Your task to perform on an android device: toggle translation in the chrome app Image 0: 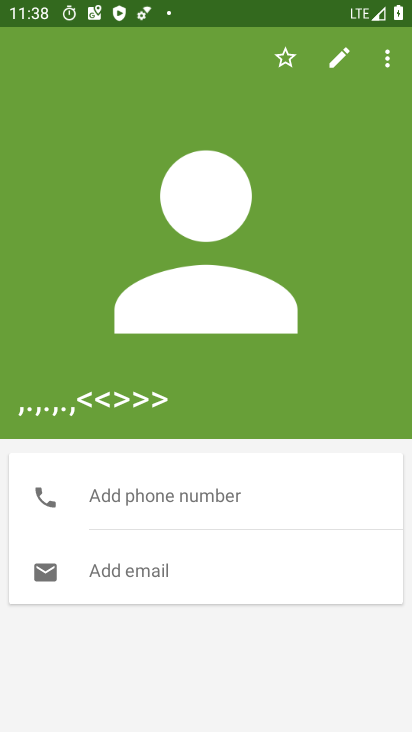
Step 0: press home button
Your task to perform on an android device: toggle translation in the chrome app Image 1: 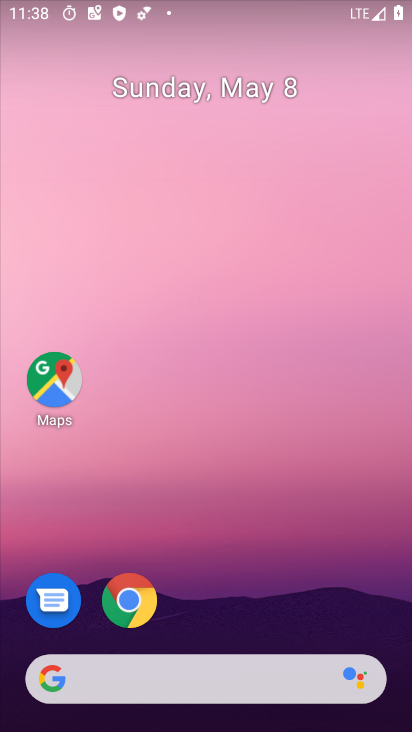
Step 1: click (149, 610)
Your task to perform on an android device: toggle translation in the chrome app Image 2: 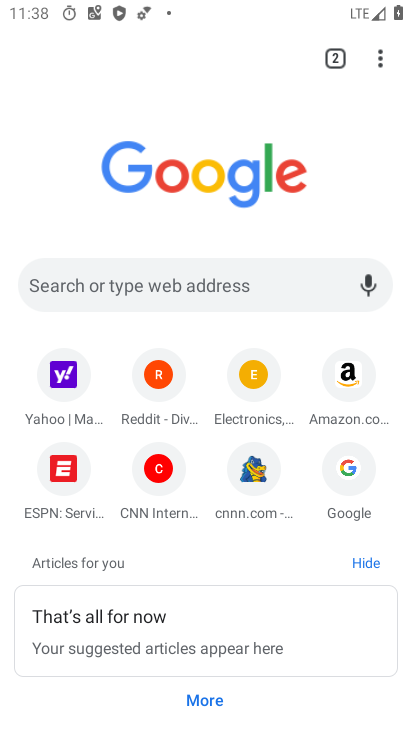
Step 2: click (379, 60)
Your task to perform on an android device: toggle translation in the chrome app Image 3: 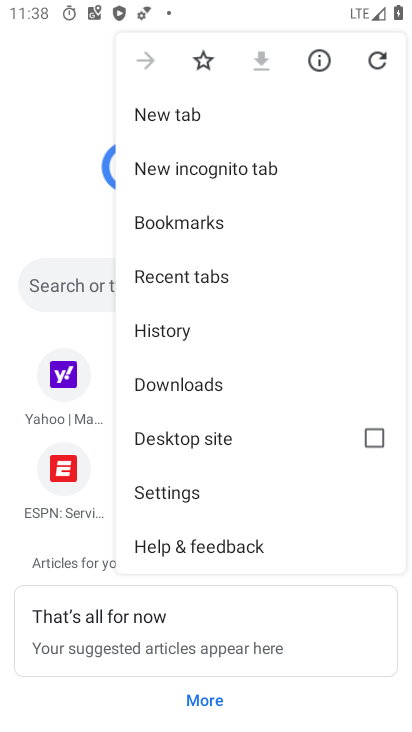
Step 3: click (223, 499)
Your task to perform on an android device: toggle translation in the chrome app Image 4: 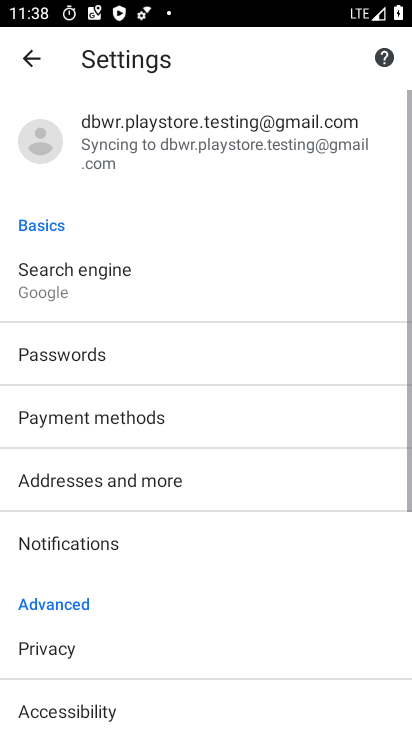
Step 4: drag from (206, 533) to (299, 196)
Your task to perform on an android device: toggle translation in the chrome app Image 5: 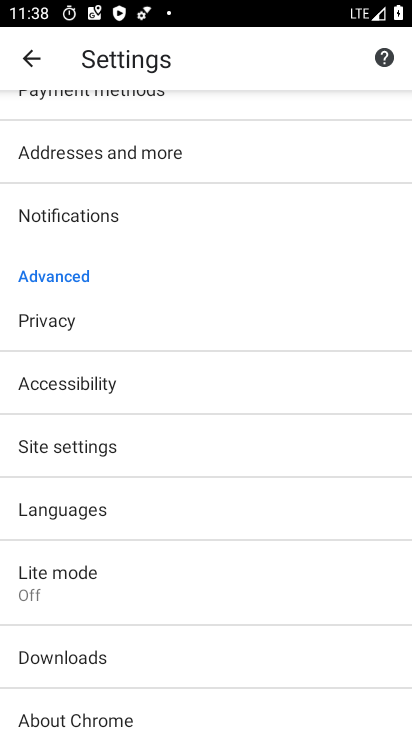
Step 5: drag from (186, 618) to (206, 426)
Your task to perform on an android device: toggle translation in the chrome app Image 6: 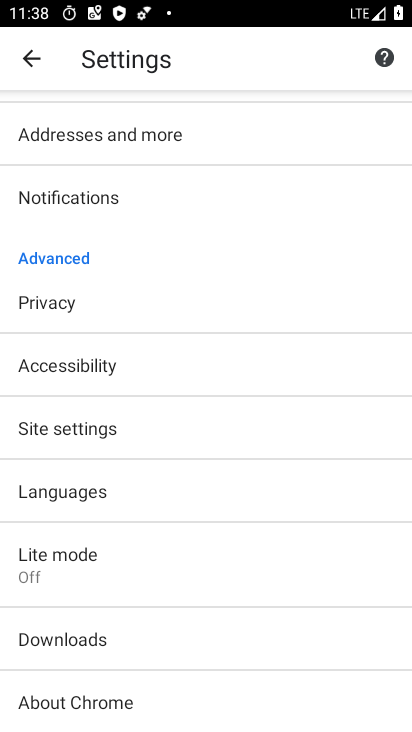
Step 6: click (160, 500)
Your task to perform on an android device: toggle translation in the chrome app Image 7: 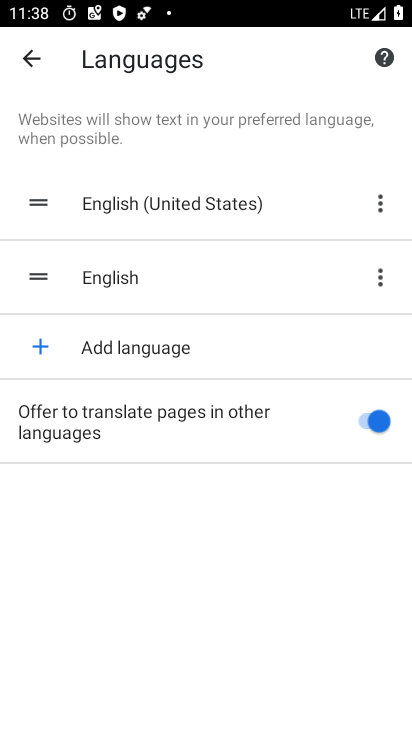
Step 7: click (381, 428)
Your task to perform on an android device: toggle translation in the chrome app Image 8: 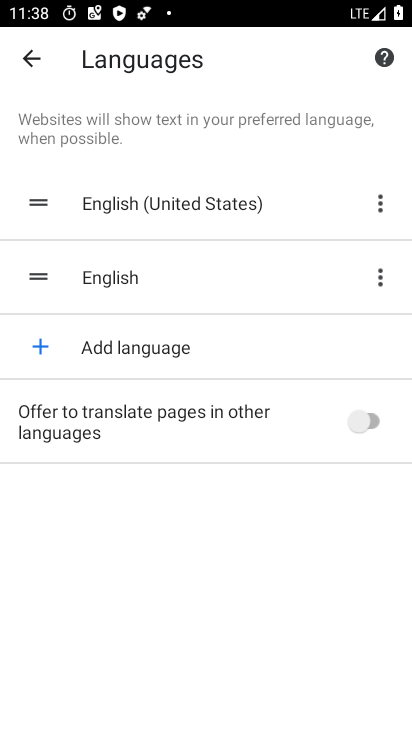
Step 8: task complete